Your task to perform on an android device: Turn on the flashlight Image 0: 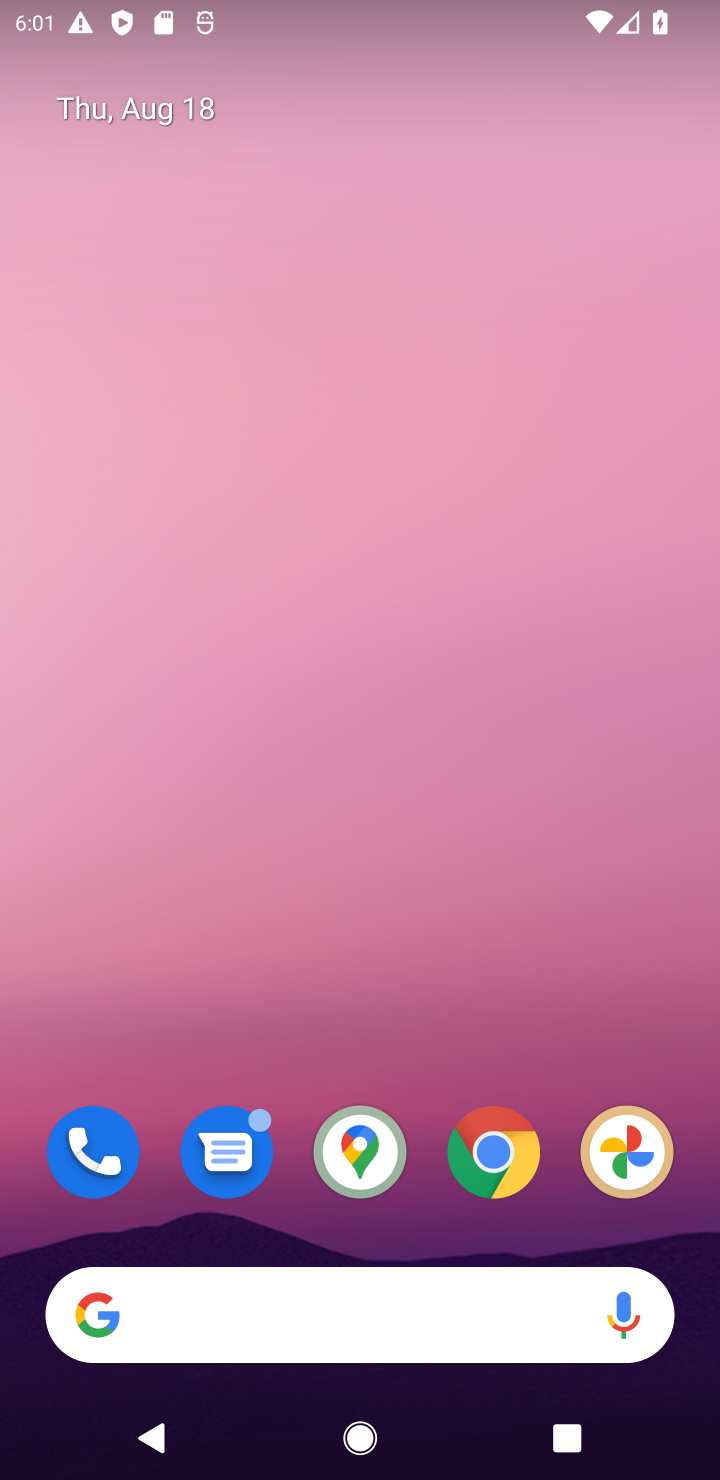
Step 0: drag from (511, 9) to (363, 1047)
Your task to perform on an android device: Turn on the flashlight Image 1: 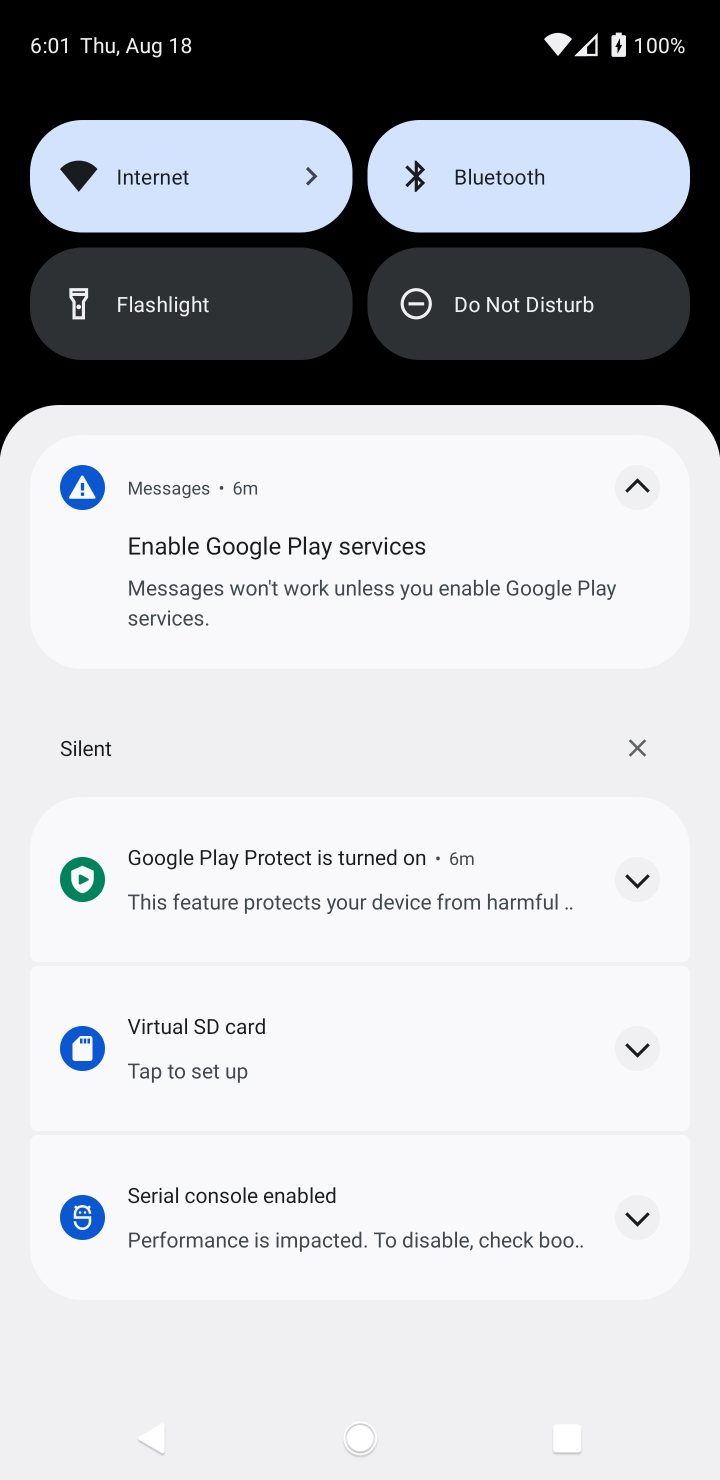
Step 1: task complete